Your task to perform on an android device: Go to CNN.com Image 0: 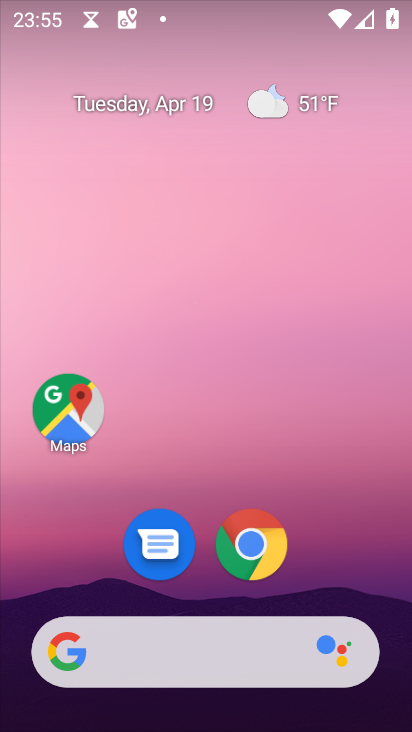
Step 0: click (254, 548)
Your task to perform on an android device: Go to CNN.com Image 1: 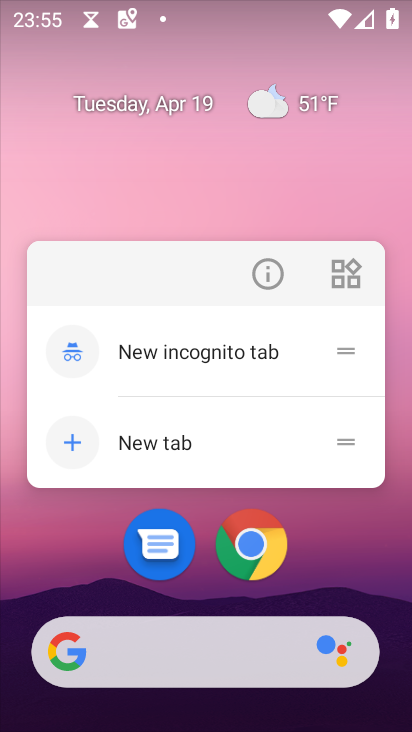
Step 1: click (254, 548)
Your task to perform on an android device: Go to CNN.com Image 2: 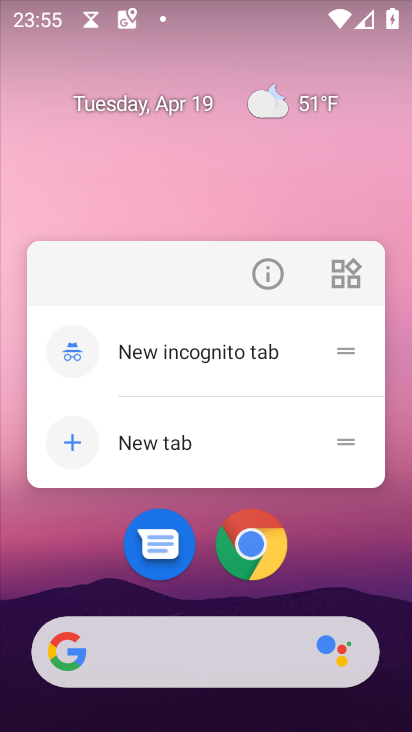
Step 2: click (254, 545)
Your task to perform on an android device: Go to CNN.com Image 3: 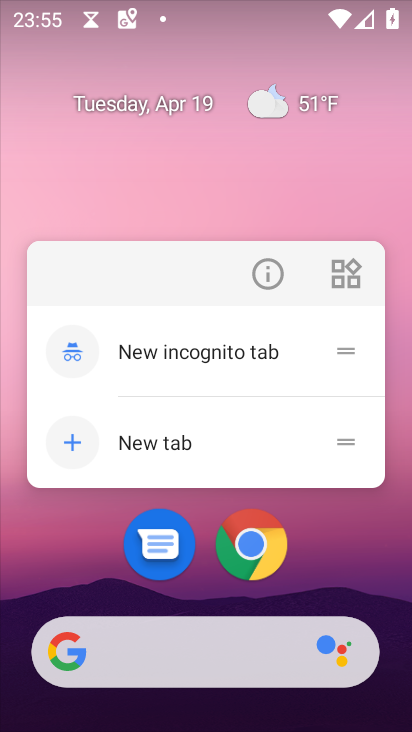
Step 3: click (254, 545)
Your task to perform on an android device: Go to CNN.com Image 4: 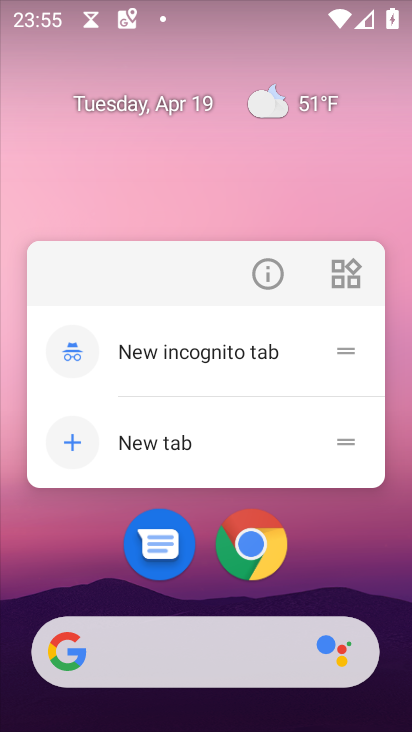
Step 4: click (254, 545)
Your task to perform on an android device: Go to CNN.com Image 5: 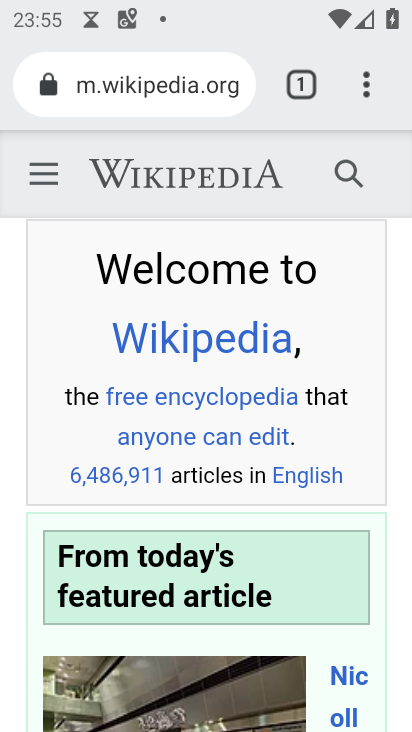
Step 5: click (193, 79)
Your task to perform on an android device: Go to CNN.com Image 6: 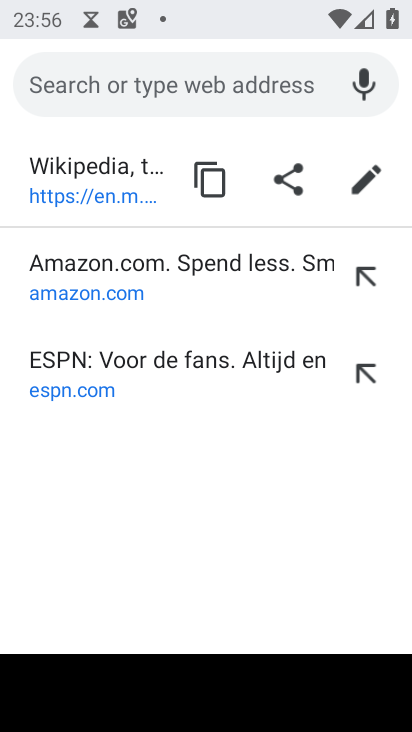
Step 6: type "cnn.com"
Your task to perform on an android device: Go to CNN.com Image 7: 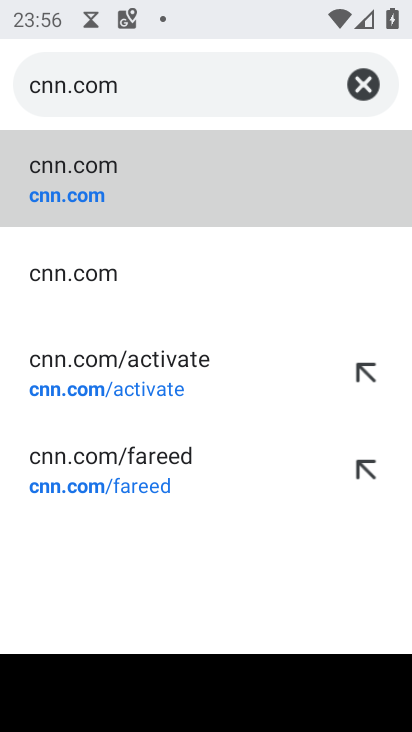
Step 7: click (213, 175)
Your task to perform on an android device: Go to CNN.com Image 8: 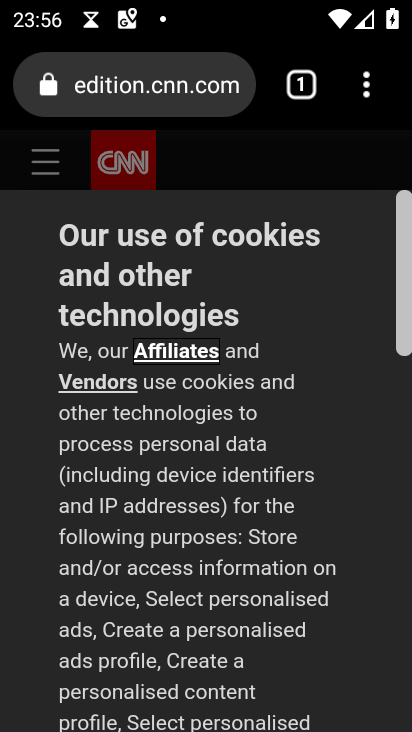
Step 8: task complete